Your task to perform on an android device: star an email in the gmail app Image 0: 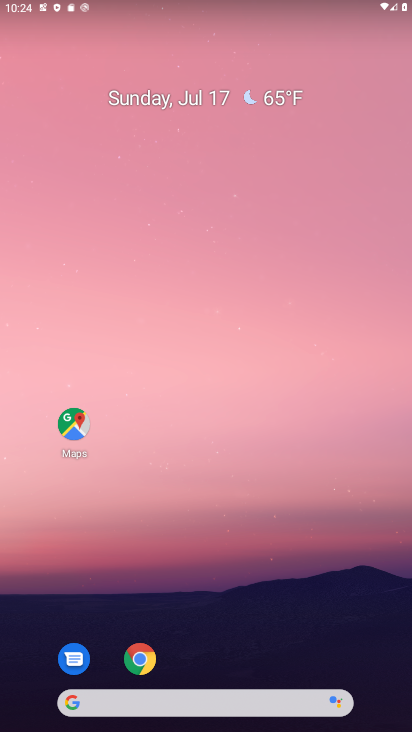
Step 0: drag from (195, 694) to (90, 15)
Your task to perform on an android device: star an email in the gmail app Image 1: 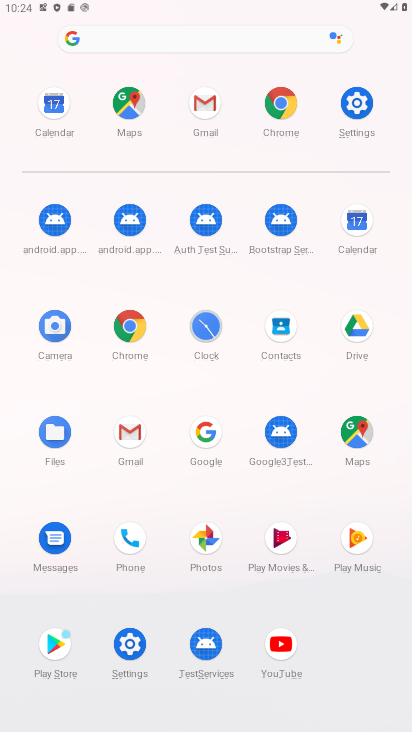
Step 1: click (124, 440)
Your task to perform on an android device: star an email in the gmail app Image 2: 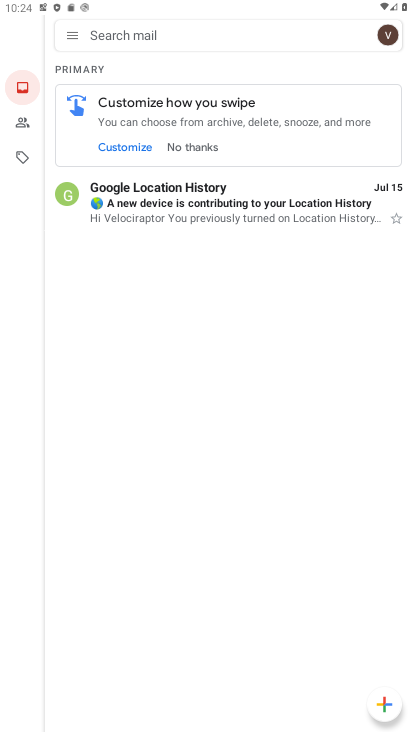
Step 2: click (397, 230)
Your task to perform on an android device: star an email in the gmail app Image 3: 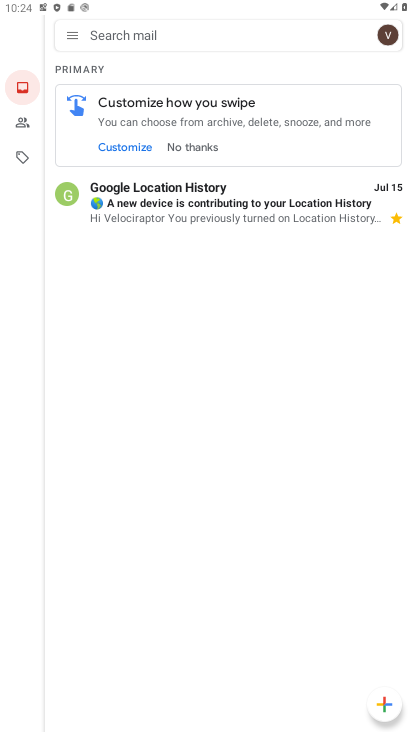
Step 3: task complete